Your task to perform on an android device: turn off picture-in-picture Image 0: 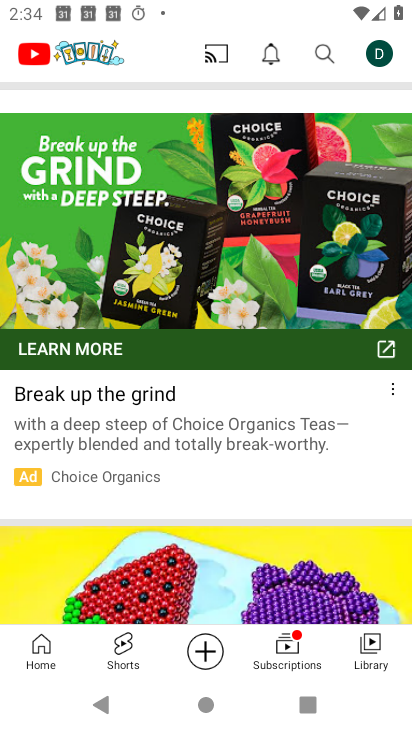
Step 0: press home button
Your task to perform on an android device: turn off picture-in-picture Image 1: 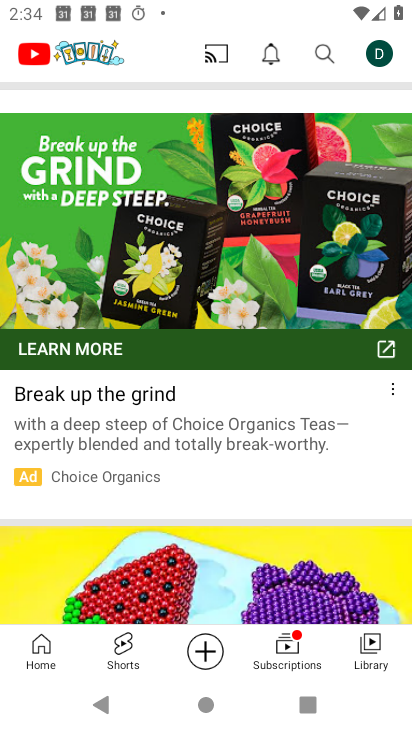
Step 1: drag from (215, 554) to (399, 238)
Your task to perform on an android device: turn off picture-in-picture Image 2: 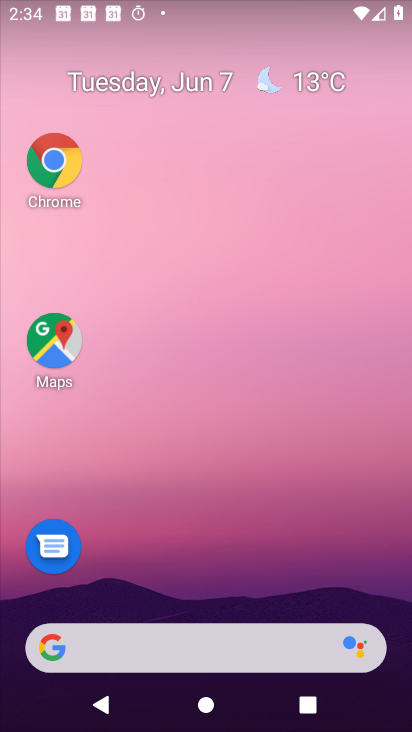
Step 2: drag from (223, 586) to (248, 96)
Your task to perform on an android device: turn off picture-in-picture Image 3: 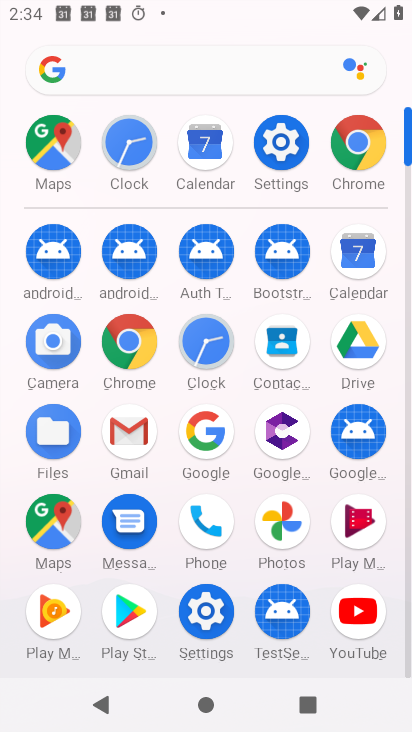
Step 3: click (275, 129)
Your task to perform on an android device: turn off picture-in-picture Image 4: 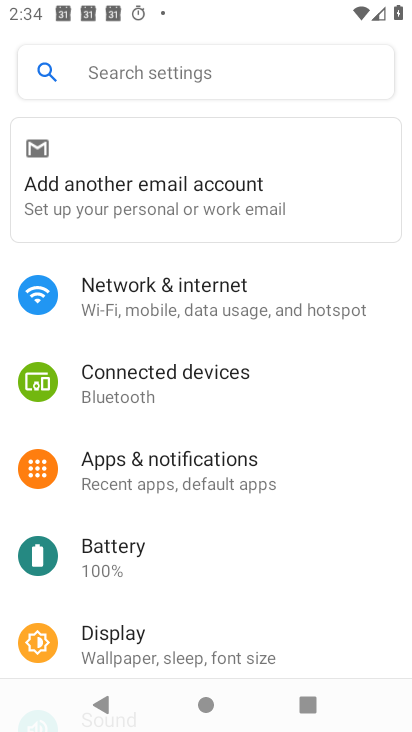
Step 4: drag from (209, 579) to (286, 161)
Your task to perform on an android device: turn off picture-in-picture Image 5: 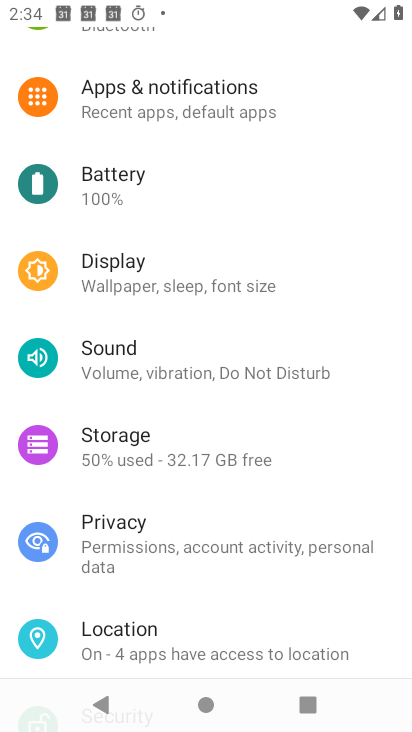
Step 5: click (202, 105)
Your task to perform on an android device: turn off picture-in-picture Image 6: 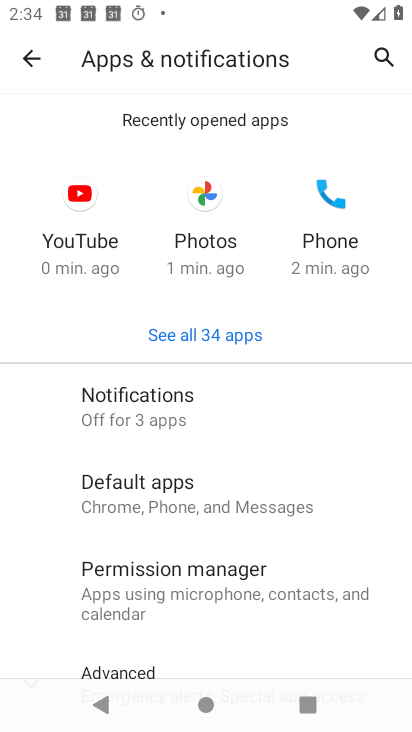
Step 6: drag from (196, 602) to (262, 230)
Your task to perform on an android device: turn off picture-in-picture Image 7: 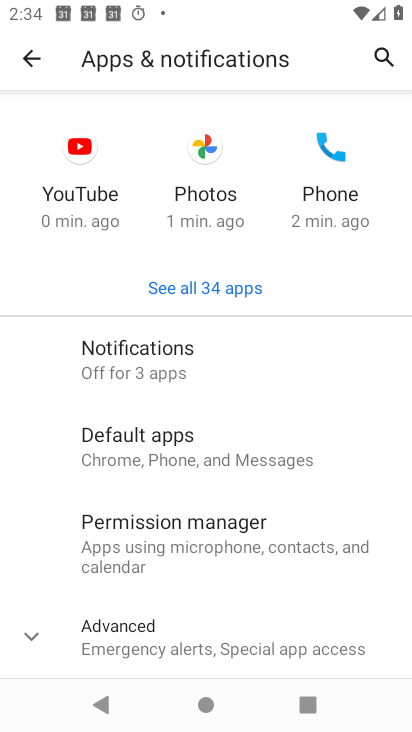
Step 7: click (174, 637)
Your task to perform on an android device: turn off picture-in-picture Image 8: 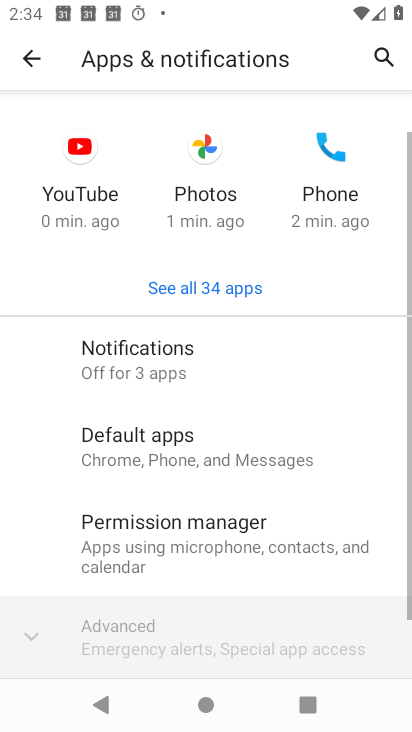
Step 8: drag from (244, 614) to (366, 123)
Your task to perform on an android device: turn off picture-in-picture Image 9: 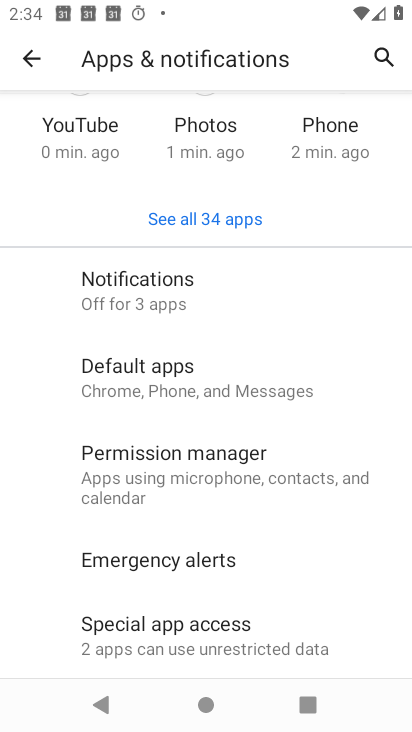
Step 9: click (134, 635)
Your task to perform on an android device: turn off picture-in-picture Image 10: 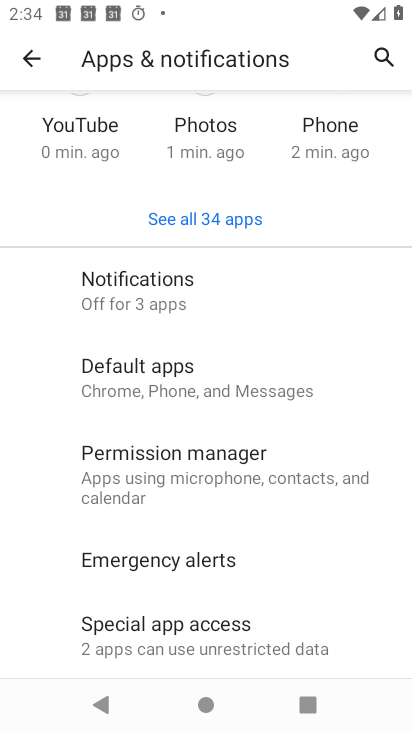
Step 10: drag from (203, 538) to (365, 107)
Your task to perform on an android device: turn off picture-in-picture Image 11: 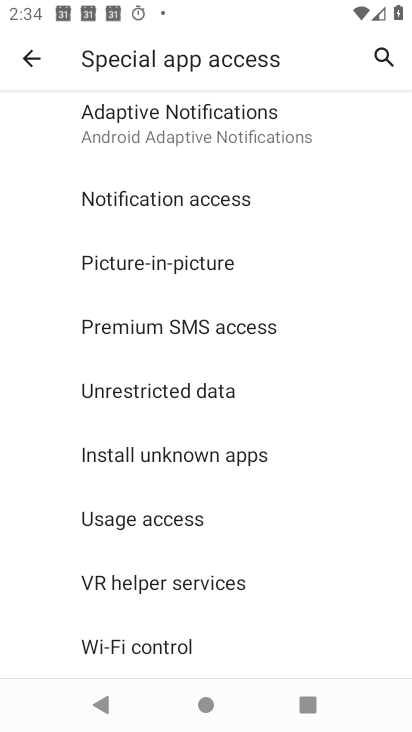
Step 11: click (145, 270)
Your task to perform on an android device: turn off picture-in-picture Image 12: 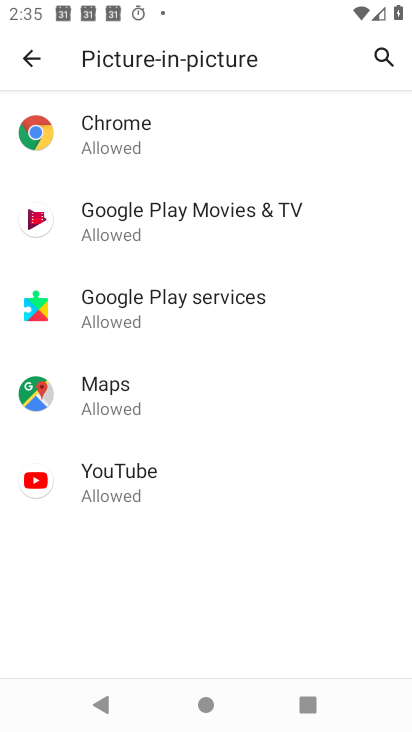
Step 12: task complete